Your task to perform on an android device: Is it going to rain today? Image 0: 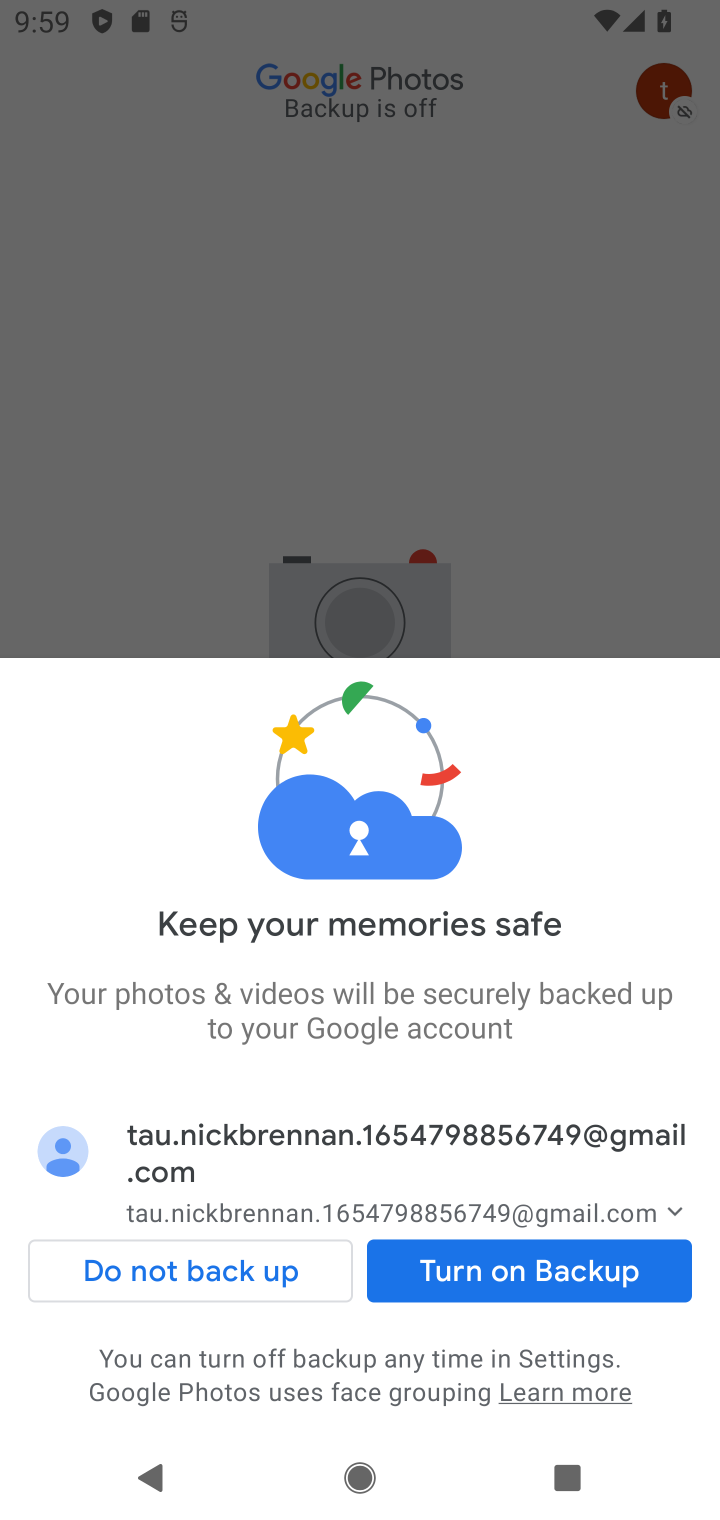
Step 0: press home button
Your task to perform on an android device: Is it going to rain today? Image 1: 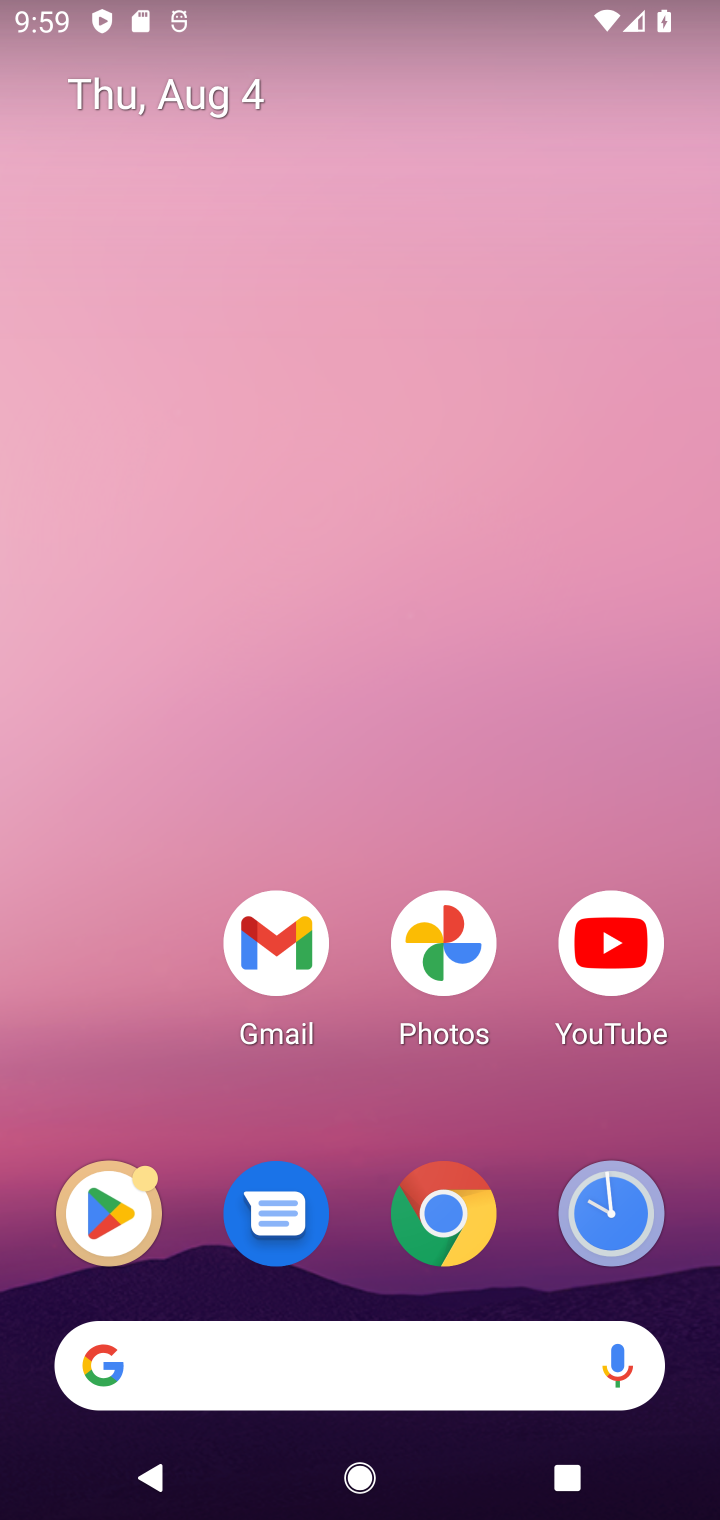
Step 1: click (352, 1369)
Your task to perform on an android device: Is it going to rain today? Image 2: 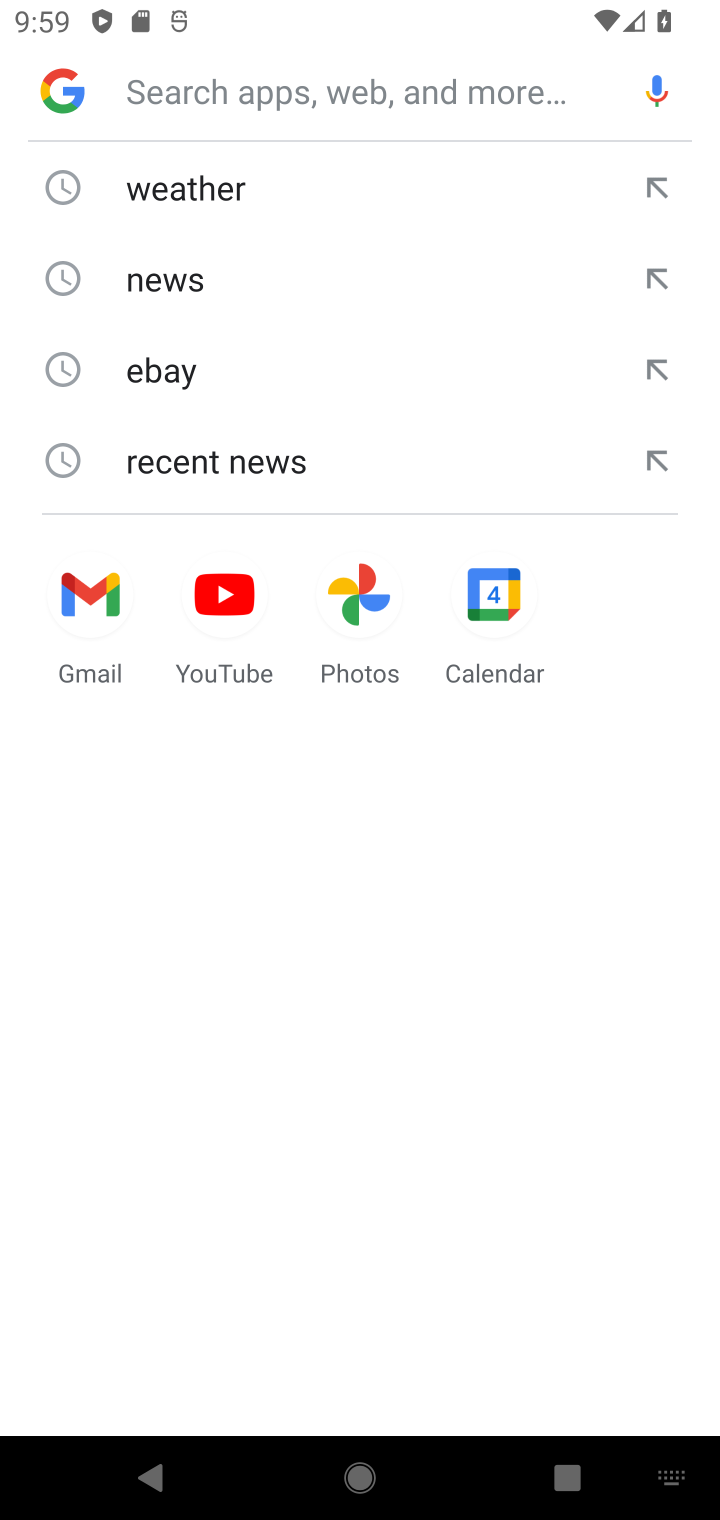
Step 2: click (251, 179)
Your task to perform on an android device: Is it going to rain today? Image 3: 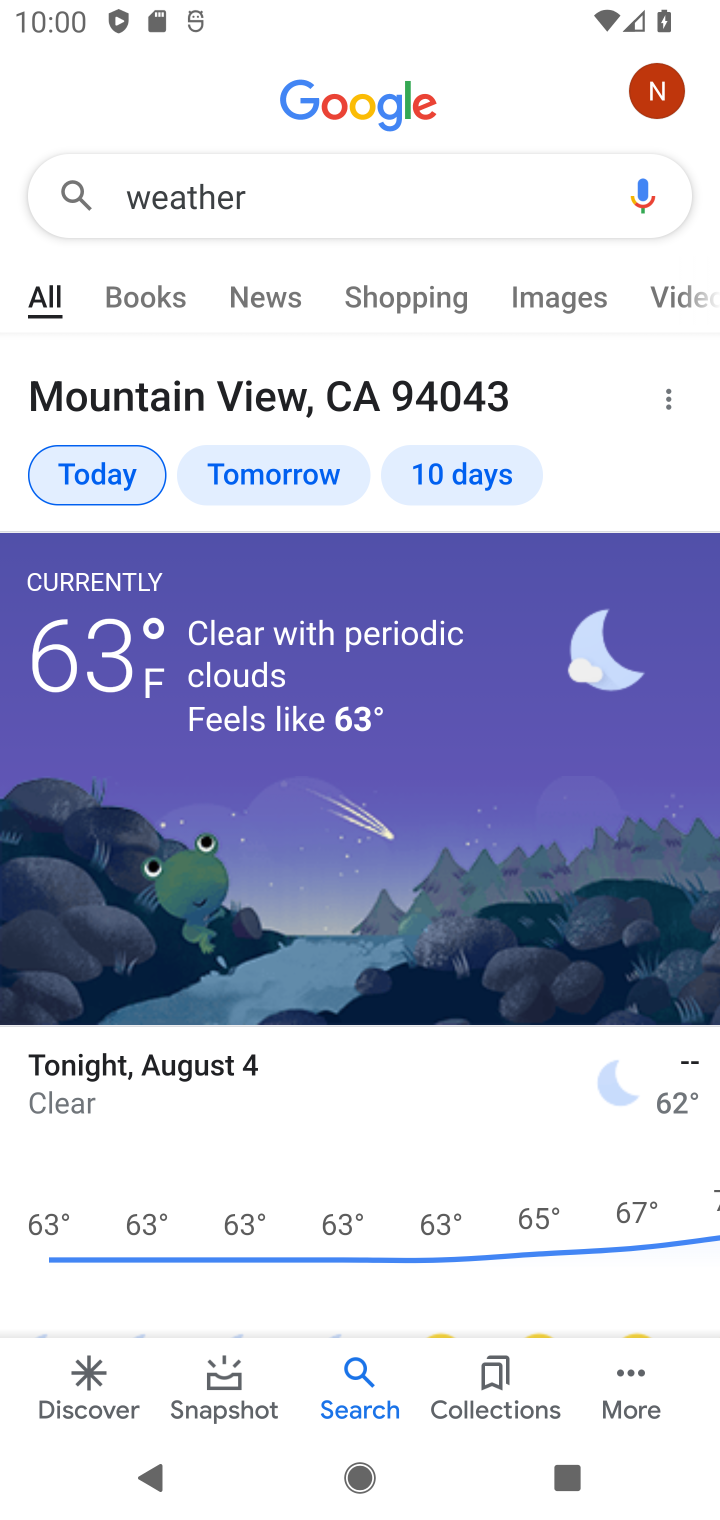
Step 3: task complete